Your task to perform on an android device: Open Chrome and go to settings Image 0: 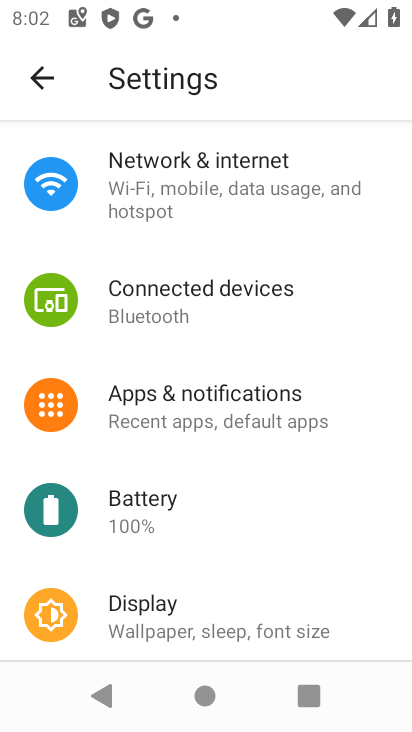
Step 0: press back button
Your task to perform on an android device: Open Chrome and go to settings Image 1: 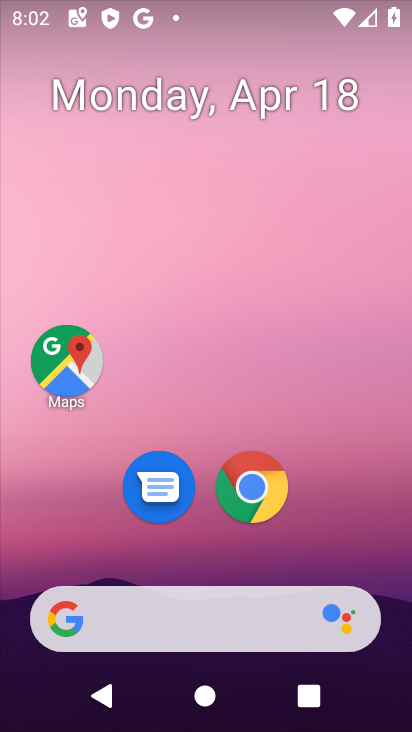
Step 1: click (257, 487)
Your task to perform on an android device: Open Chrome and go to settings Image 2: 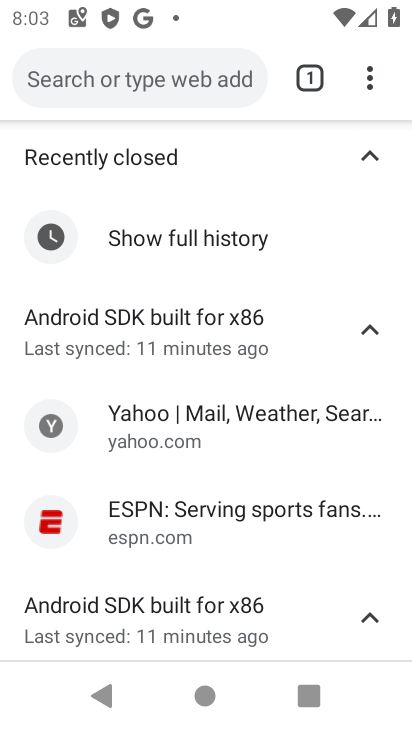
Step 2: click (370, 82)
Your task to perform on an android device: Open Chrome and go to settings Image 3: 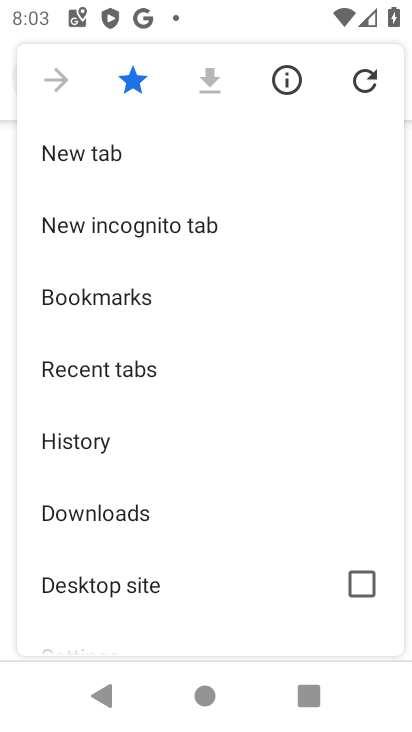
Step 3: drag from (126, 616) to (158, 245)
Your task to perform on an android device: Open Chrome and go to settings Image 4: 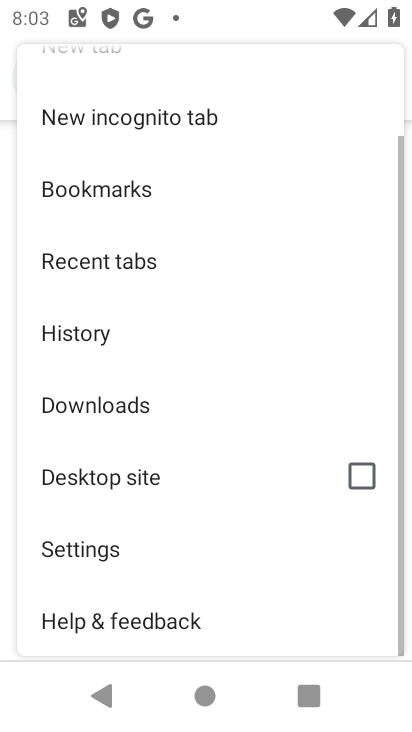
Step 4: click (76, 549)
Your task to perform on an android device: Open Chrome and go to settings Image 5: 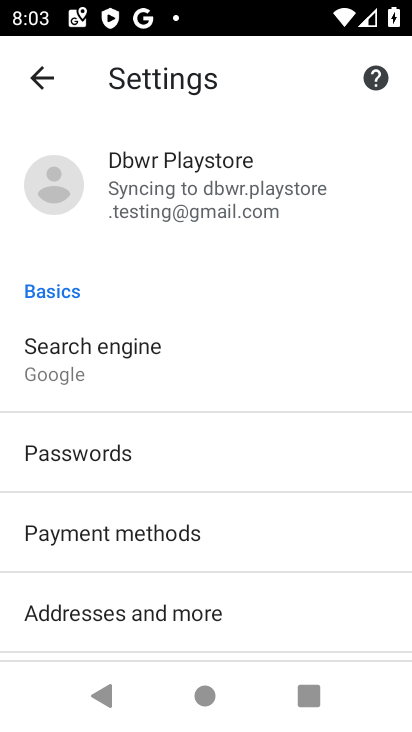
Step 5: task complete